Your task to perform on an android device: Search for sushi restaurants on Maps Image 0: 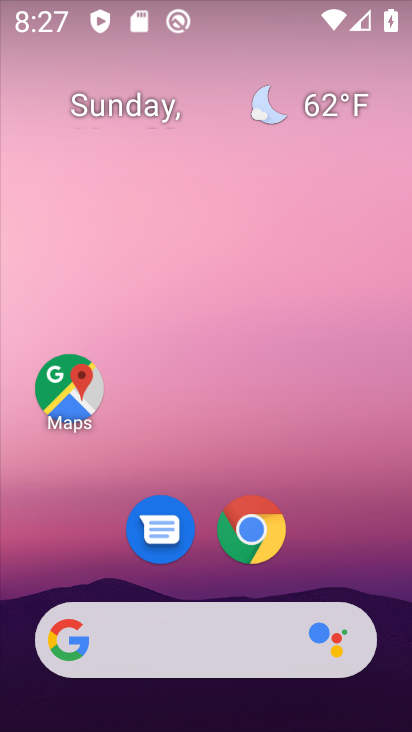
Step 0: drag from (352, 656) to (135, 135)
Your task to perform on an android device: Search for sushi restaurants on Maps Image 1: 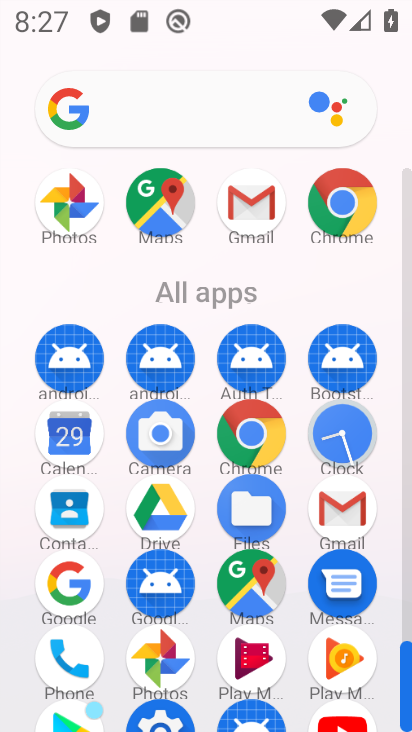
Step 1: click (251, 583)
Your task to perform on an android device: Search for sushi restaurants on Maps Image 2: 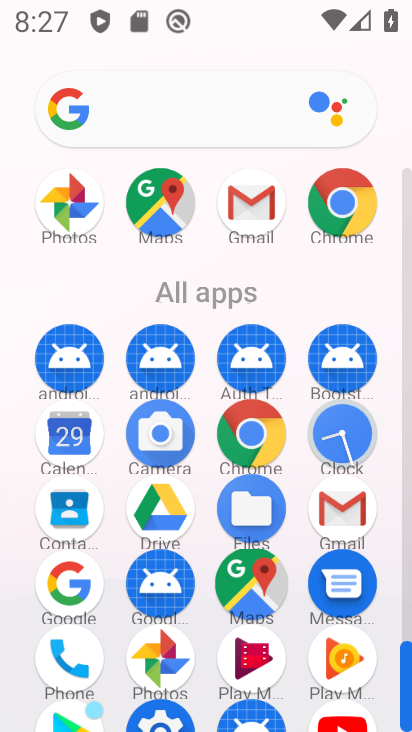
Step 2: click (251, 583)
Your task to perform on an android device: Search for sushi restaurants on Maps Image 3: 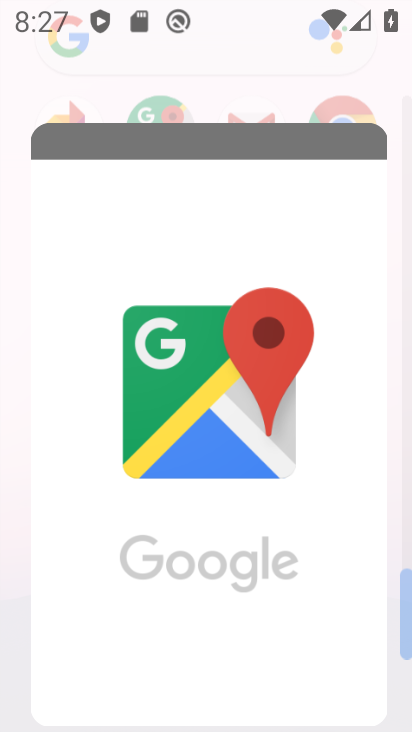
Step 3: click (251, 583)
Your task to perform on an android device: Search for sushi restaurants on Maps Image 4: 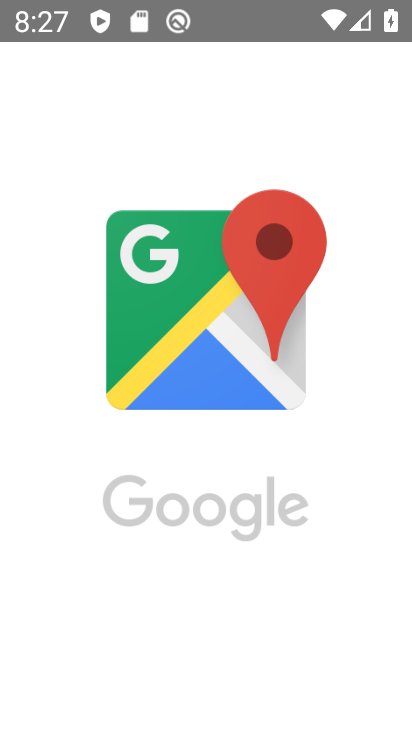
Step 4: click (197, 322)
Your task to perform on an android device: Search for sushi restaurants on Maps Image 5: 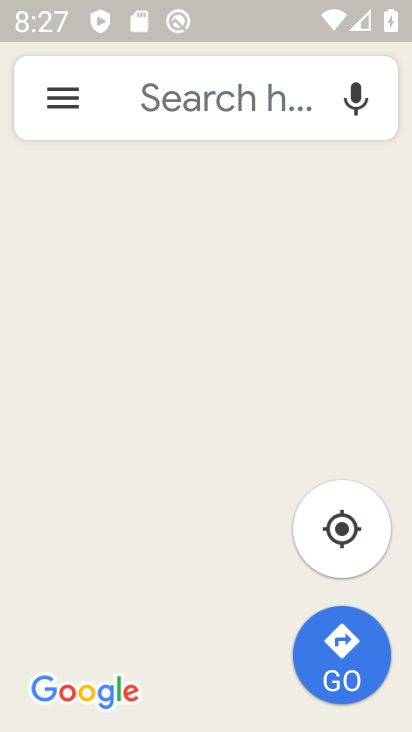
Step 5: click (200, 315)
Your task to perform on an android device: Search for sushi restaurants on Maps Image 6: 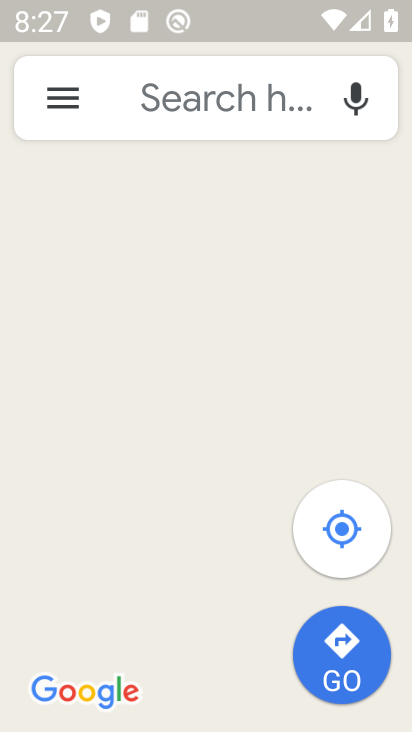
Step 6: click (146, 96)
Your task to perform on an android device: Search for sushi restaurants on Maps Image 7: 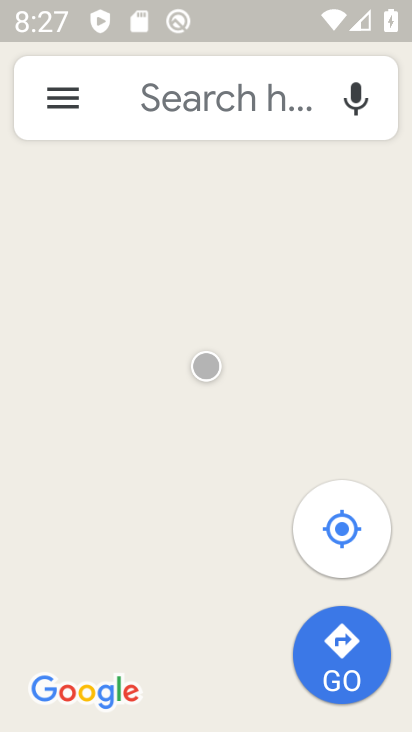
Step 7: click (141, 100)
Your task to perform on an android device: Search for sushi restaurants on Maps Image 8: 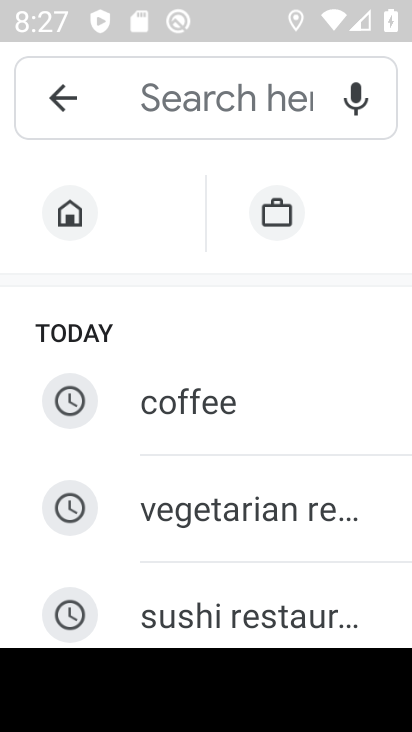
Step 8: type "sushi restaurants"
Your task to perform on an android device: Search for sushi restaurants on Maps Image 9: 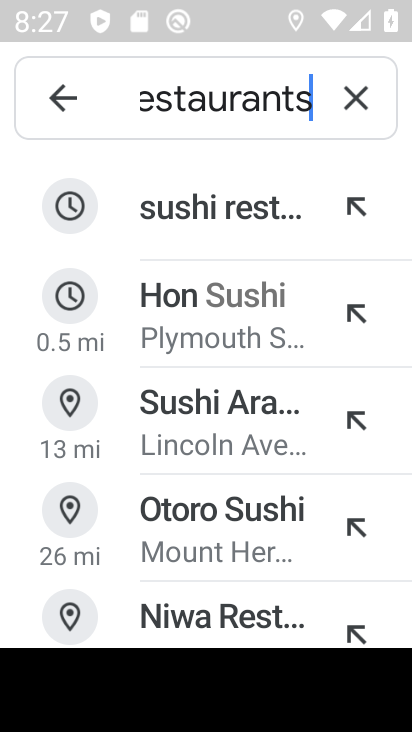
Step 9: click (224, 204)
Your task to perform on an android device: Search for sushi restaurants on Maps Image 10: 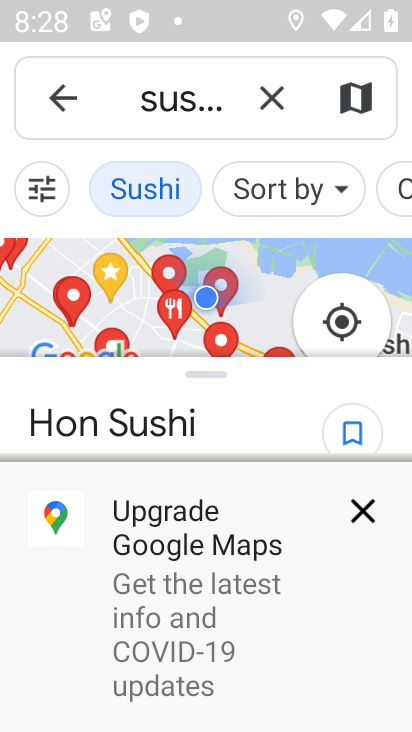
Step 10: task complete